Your task to perform on an android device: View the shopping cart on amazon.com. Search for razer kraken on amazon.com, select the first entry, and add it to the cart. Image 0: 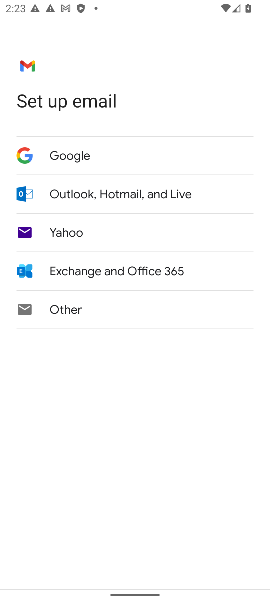
Step 0: press home button
Your task to perform on an android device: View the shopping cart on amazon.com. Search for razer kraken on amazon.com, select the first entry, and add it to the cart. Image 1: 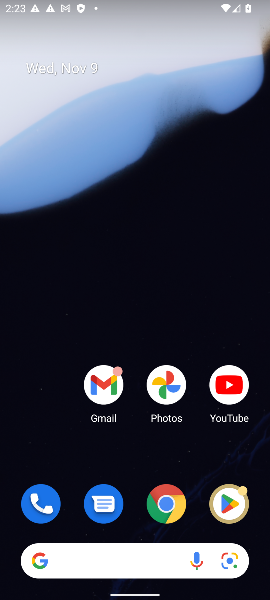
Step 1: click (168, 510)
Your task to perform on an android device: View the shopping cart on amazon.com. Search for razer kraken on amazon.com, select the first entry, and add it to the cart. Image 2: 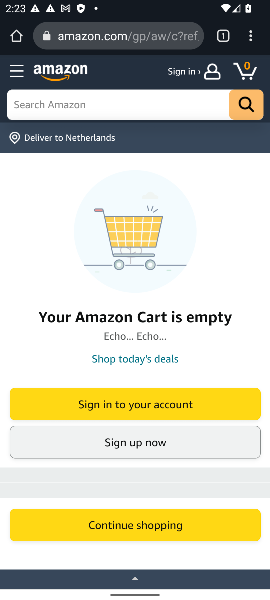
Step 2: click (86, 111)
Your task to perform on an android device: View the shopping cart on amazon.com. Search for razer kraken on amazon.com, select the first entry, and add it to the cart. Image 3: 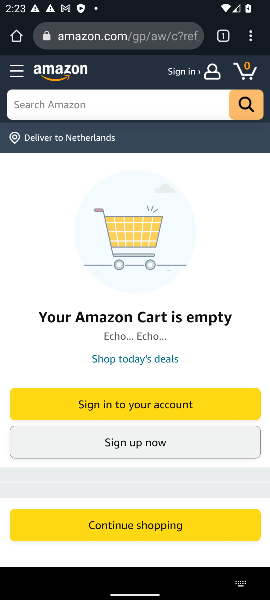
Step 3: type "razer kraken"
Your task to perform on an android device: View the shopping cart on amazon.com. Search for razer kraken on amazon.com, select the first entry, and add it to the cart. Image 4: 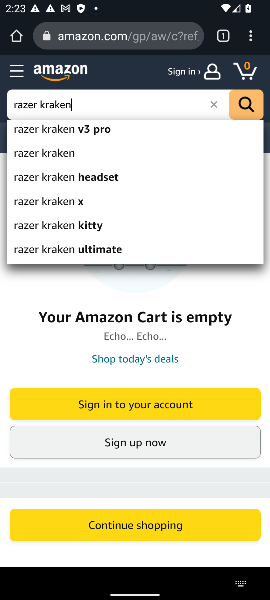
Step 4: click (46, 160)
Your task to perform on an android device: View the shopping cart on amazon.com. Search for razer kraken on amazon.com, select the first entry, and add it to the cart. Image 5: 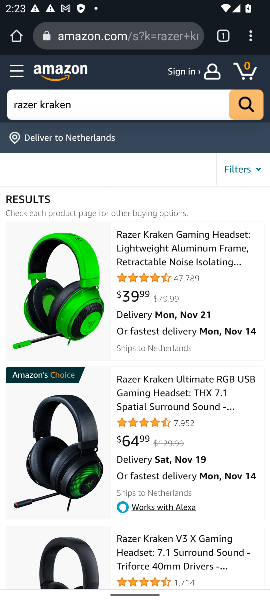
Step 5: click (64, 282)
Your task to perform on an android device: View the shopping cart on amazon.com. Search for razer kraken on amazon.com, select the first entry, and add it to the cart. Image 6: 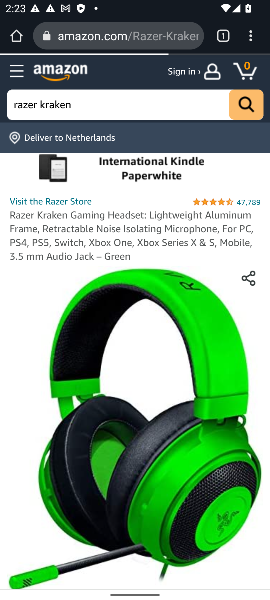
Step 6: drag from (94, 469) to (104, 219)
Your task to perform on an android device: View the shopping cart on amazon.com. Search for razer kraken on amazon.com, select the first entry, and add it to the cart. Image 7: 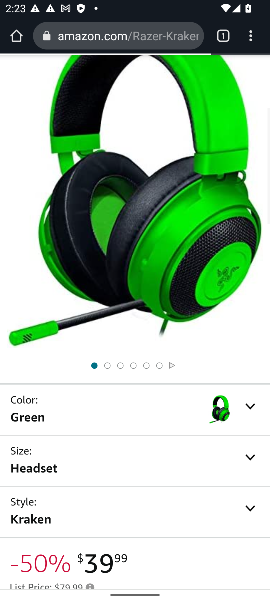
Step 7: drag from (105, 488) to (105, 287)
Your task to perform on an android device: View the shopping cart on amazon.com. Search for razer kraken on amazon.com, select the first entry, and add it to the cart. Image 8: 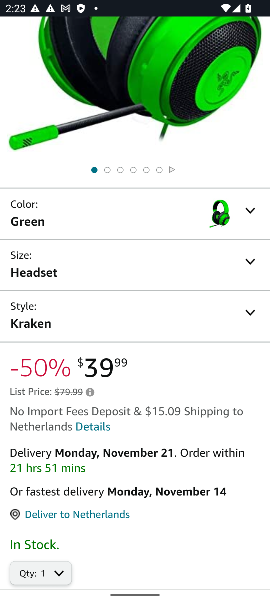
Step 8: drag from (91, 438) to (104, 266)
Your task to perform on an android device: View the shopping cart on amazon.com. Search for razer kraken on amazon.com, select the first entry, and add it to the cart. Image 9: 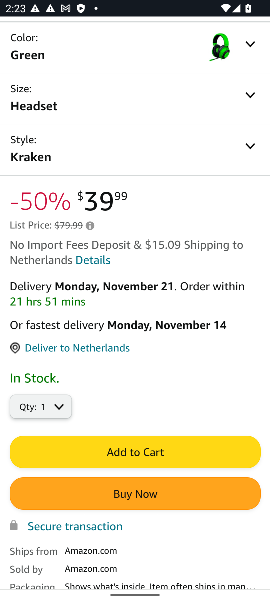
Step 9: click (91, 446)
Your task to perform on an android device: View the shopping cart on amazon.com. Search for razer kraken on amazon.com, select the first entry, and add it to the cart. Image 10: 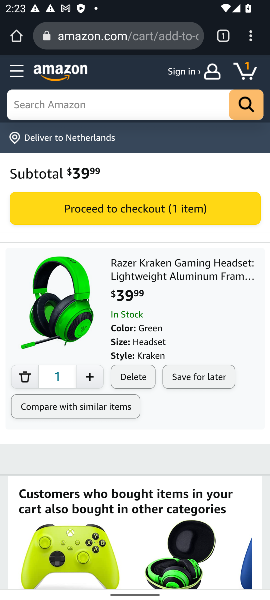
Step 10: task complete